Your task to perform on an android device: set the stopwatch Image 0: 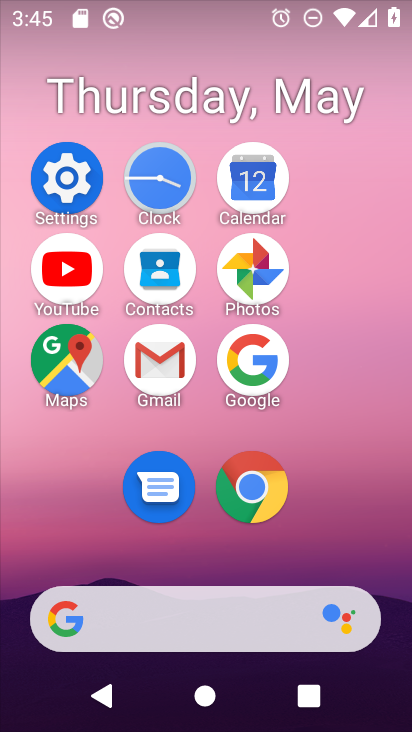
Step 0: click (155, 166)
Your task to perform on an android device: set the stopwatch Image 1: 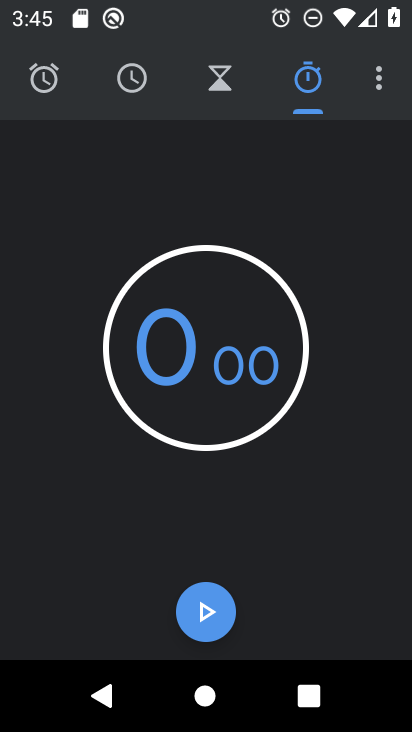
Step 1: click (207, 613)
Your task to perform on an android device: set the stopwatch Image 2: 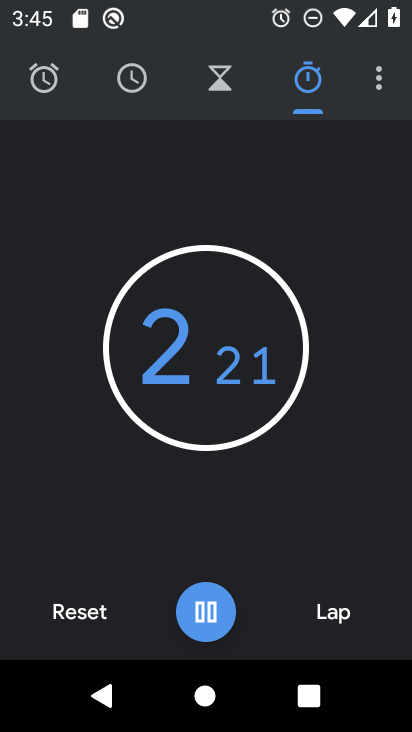
Step 2: task complete